Your task to perform on an android device: What is the recent news? Image 0: 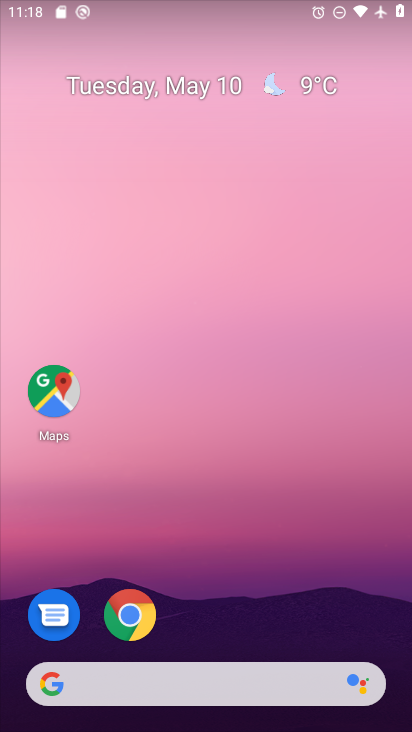
Step 0: drag from (7, 270) to (349, 299)
Your task to perform on an android device: What is the recent news? Image 1: 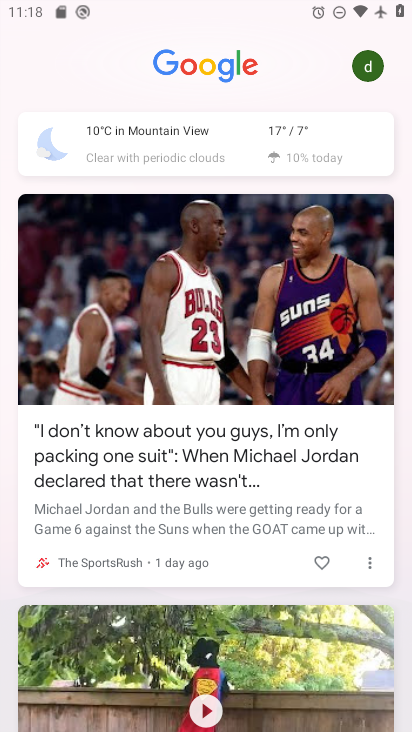
Step 1: task complete